Your task to perform on an android device: Open Reddit.com Image 0: 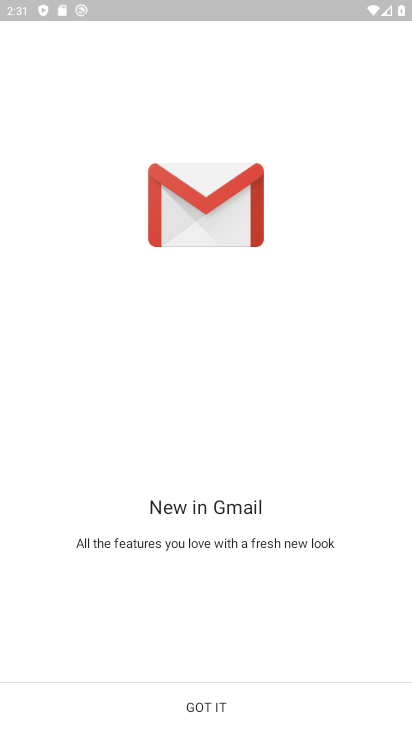
Step 0: press home button
Your task to perform on an android device: Open Reddit.com Image 1: 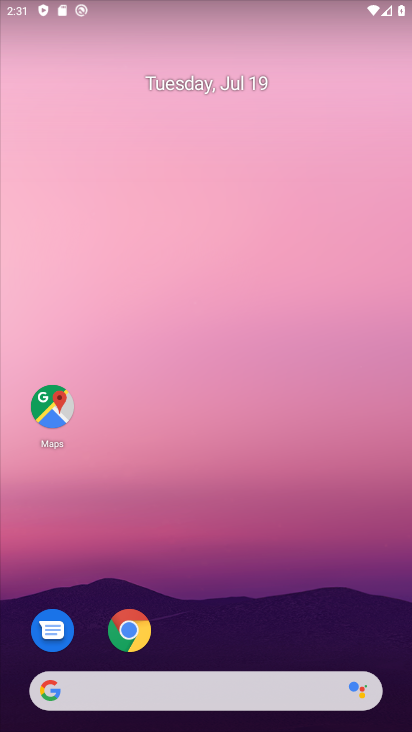
Step 1: click (131, 640)
Your task to perform on an android device: Open Reddit.com Image 2: 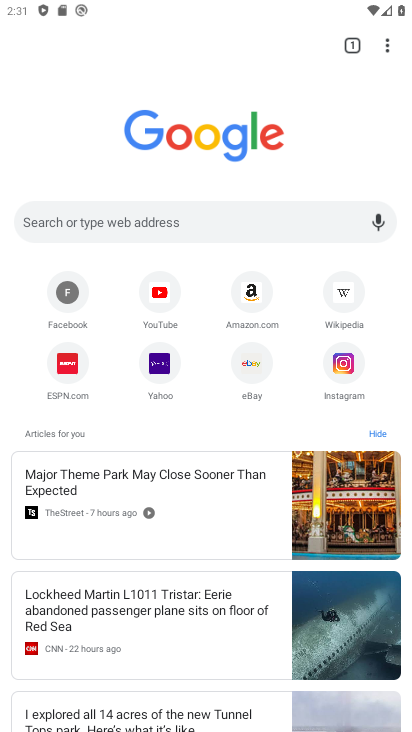
Step 2: click (226, 235)
Your task to perform on an android device: Open Reddit.com Image 3: 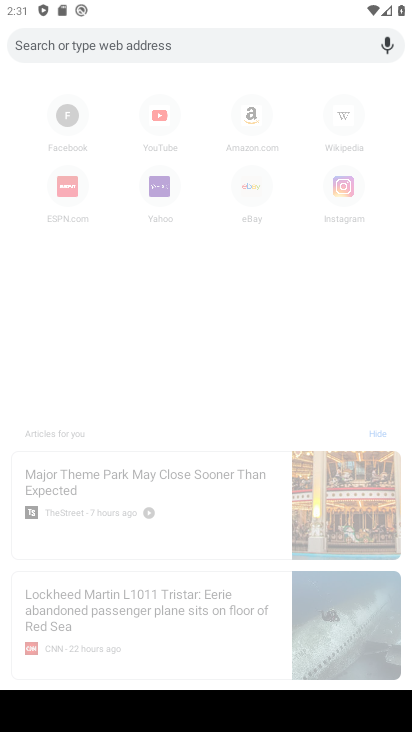
Step 3: type "reddit.com"
Your task to perform on an android device: Open Reddit.com Image 4: 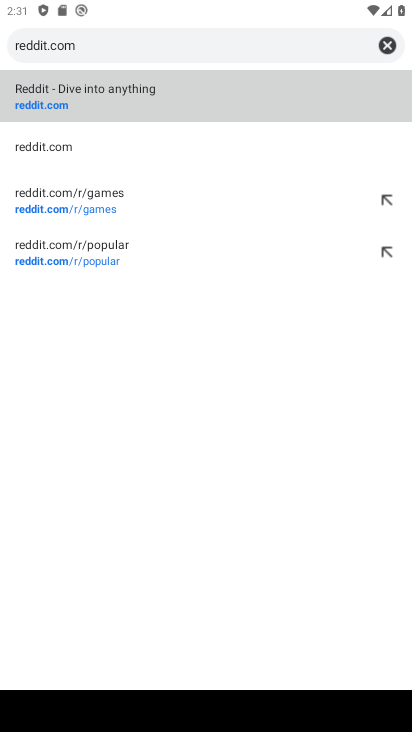
Step 4: click (161, 102)
Your task to perform on an android device: Open Reddit.com Image 5: 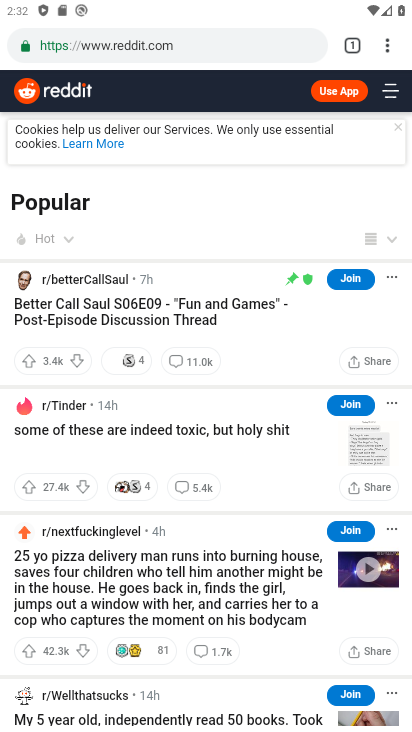
Step 5: task complete